Your task to perform on an android device: delete the emails in spam in the gmail app Image 0: 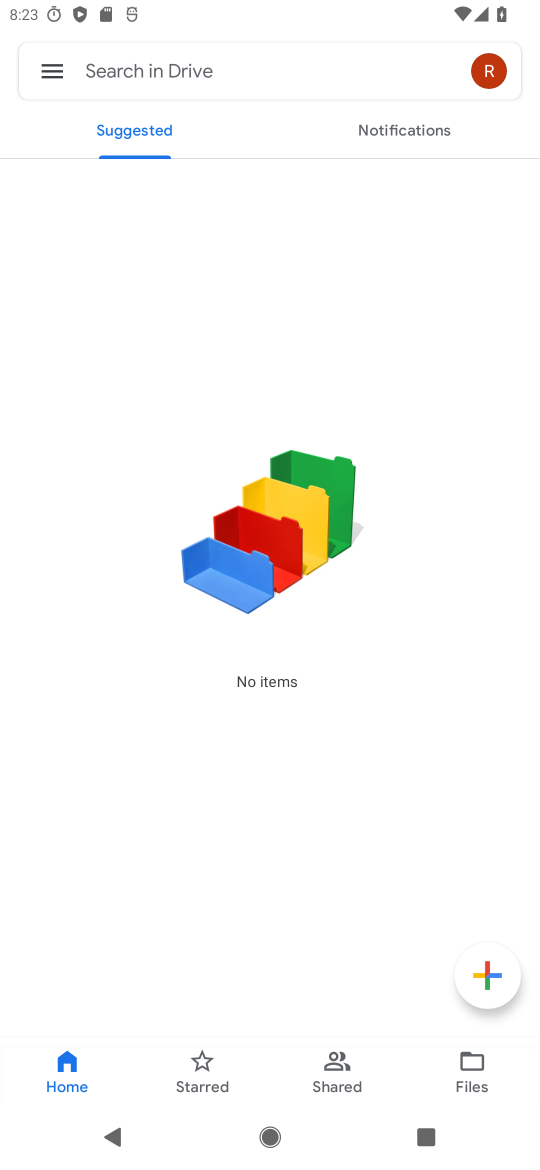
Step 0: press home button
Your task to perform on an android device: delete the emails in spam in the gmail app Image 1: 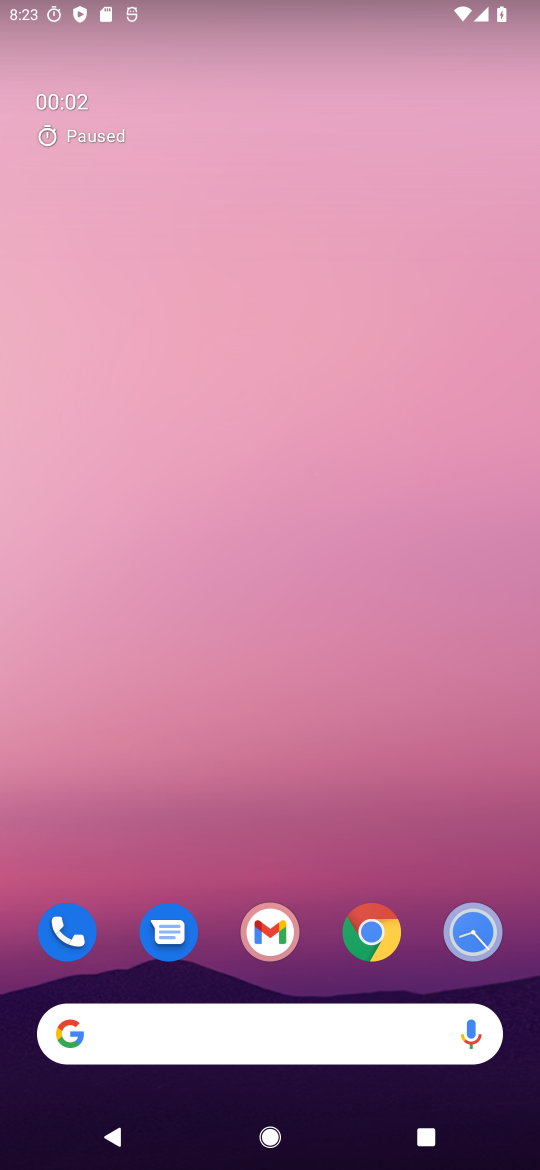
Step 1: click (264, 934)
Your task to perform on an android device: delete the emails in spam in the gmail app Image 2: 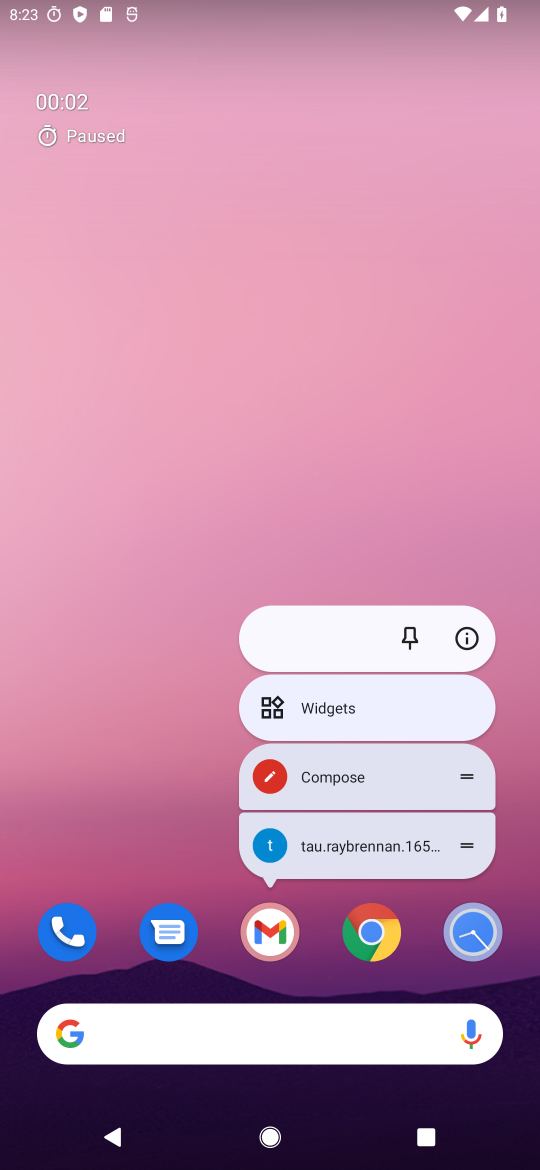
Step 2: click (264, 934)
Your task to perform on an android device: delete the emails in spam in the gmail app Image 3: 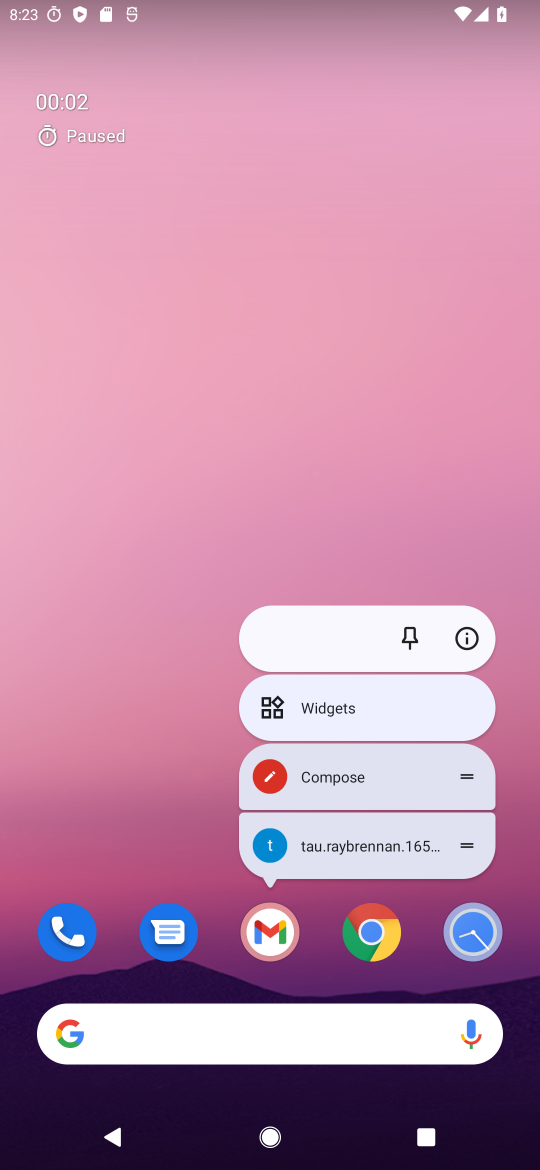
Step 3: click (272, 925)
Your task to perform on an android device: delete the emails in spam in the gmail app Image 4: 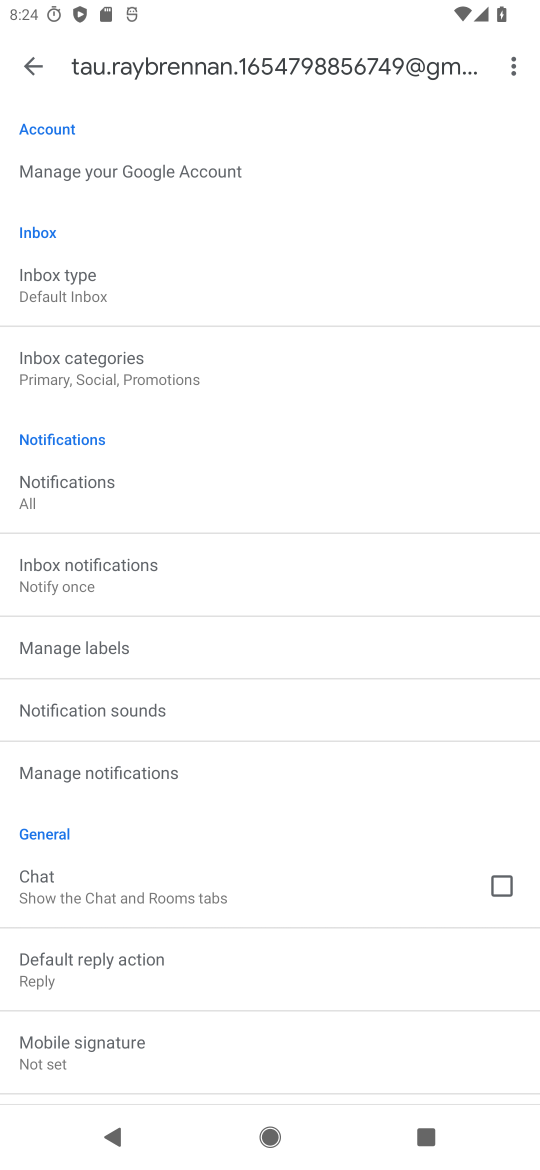
Step 4: click (39, 59)
Your task to perform on an android device: delete the emails in spam in the gmail app Image 5: 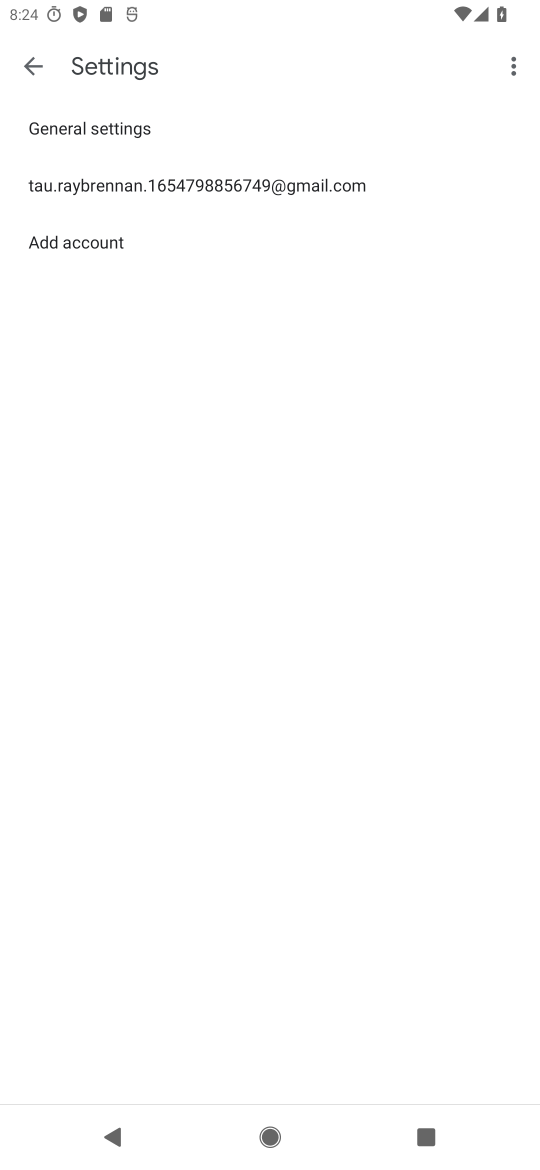
Step 5: click (35, 62)
Your task to perform on an android device: delete the emails in spam in the gmail app Image 6: 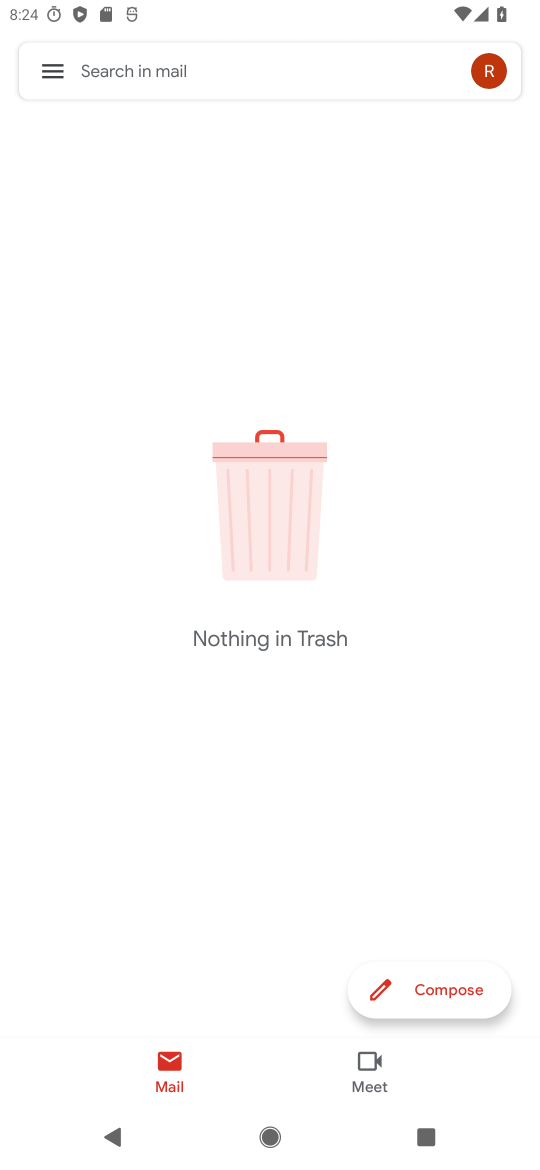
Step 6: click (56, 56)
Your task to perform on an android device: delete the emails in spam in the gmail app Image 7: 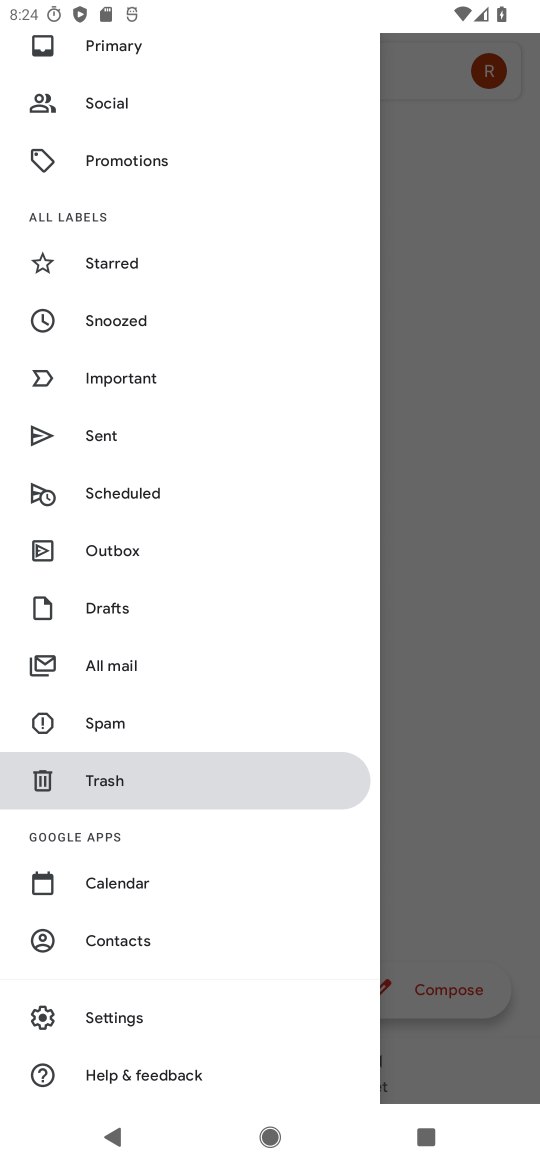
Step 7: click (125, 716)
Your task to perform on an android device: delete the emails in spam in the gmail app Image 8: 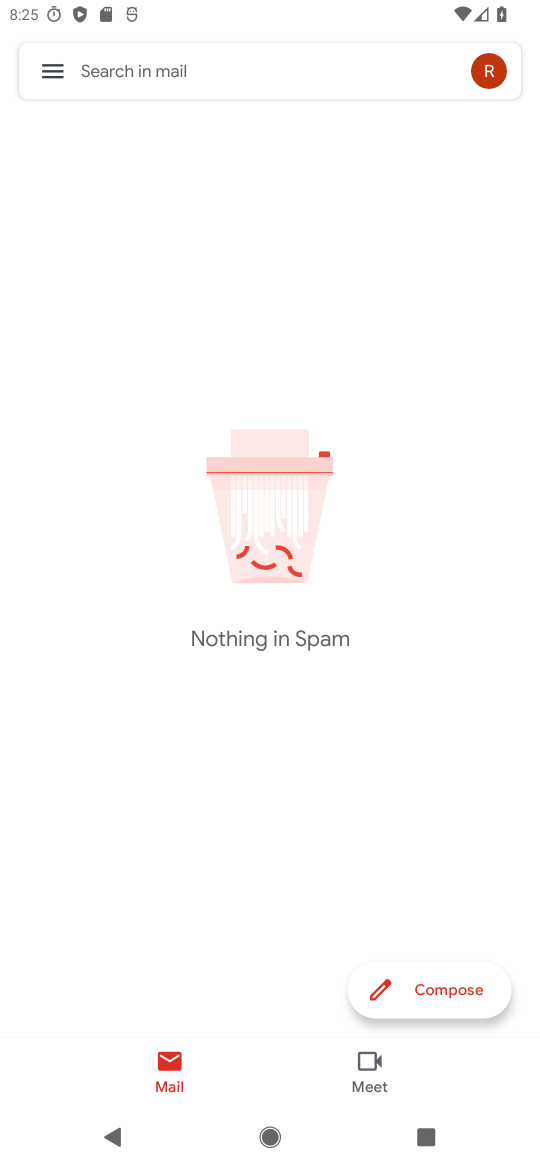
Step 8: task complete